Your task to perform on an android device: turn smart compose on in the gmail app Image 0: 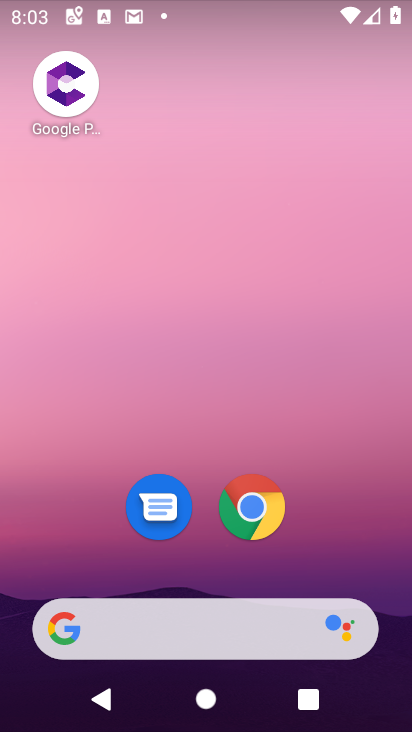
Step 0: drag from (290, 697) to (206, 8)
Your task to perform on an android device: turn smart compose on in the gmail app Image 1: 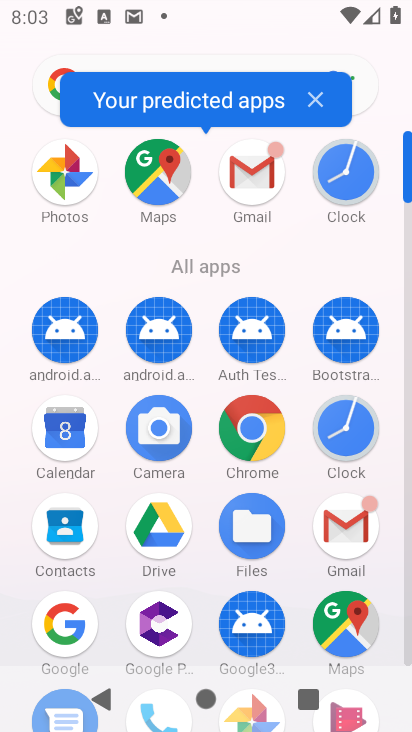
Step 1: click (348, 527)
Your task to perform on an android device: turn smart compose on in the gmail app Image 2: 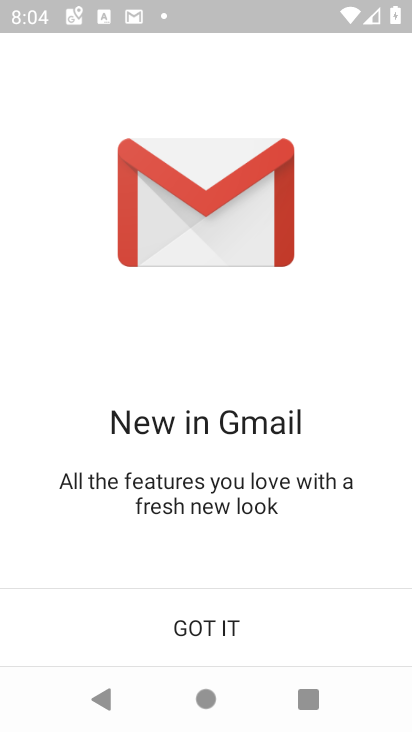
Step 2: click (275, 645)
Your task to perform on an android device: turn smart compose on in the gmail app Image 3: 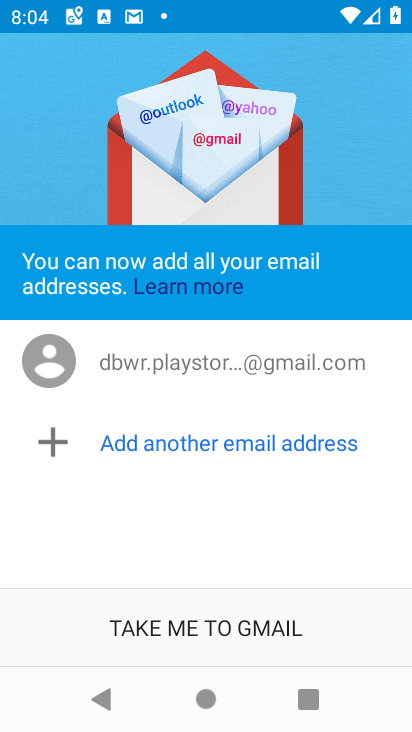
Step 3: click (303, 614)
Your task to perform on an android device: turn smart compose on in the gmail app Image 4: 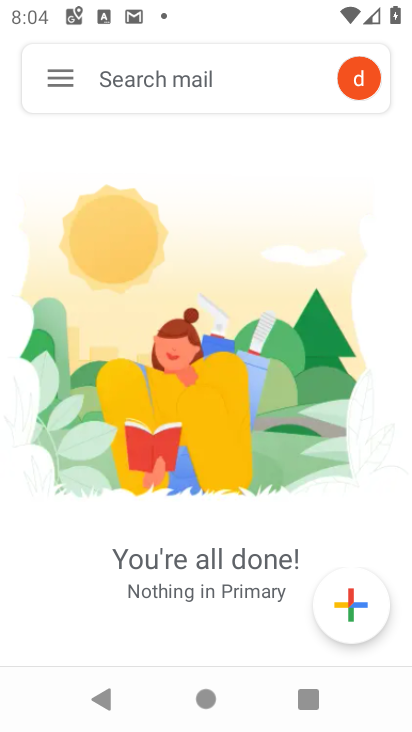
Step 4: drag from (67, 71) to (94, 438)
Your task to perform on an android device: turn smart compose on in the gmail app Image 5: 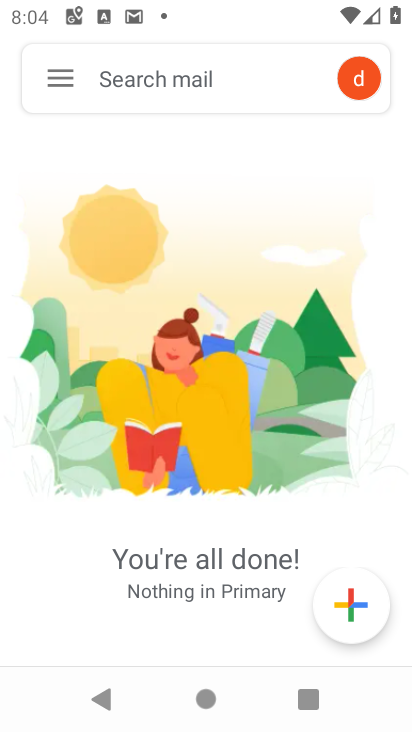
Step 5: click (51, 82)
Your task to perform on an android device: turn smart compose on in the gmail app Image 6: 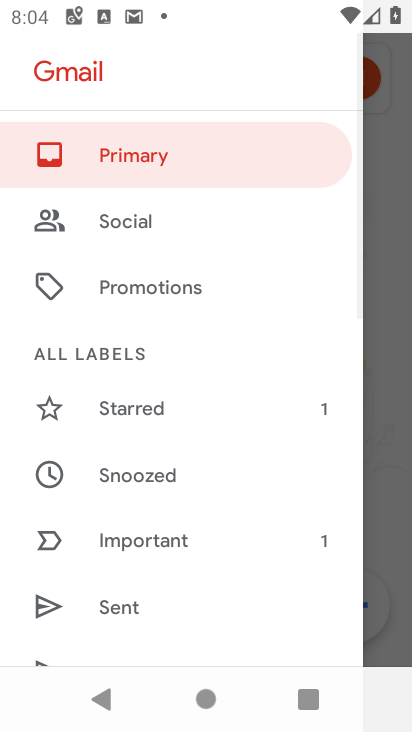
Step 6: drag from (193, 641) to (248, 15)
Your task to perform on an android device: turn smart compose on in the gmail app Image 7: 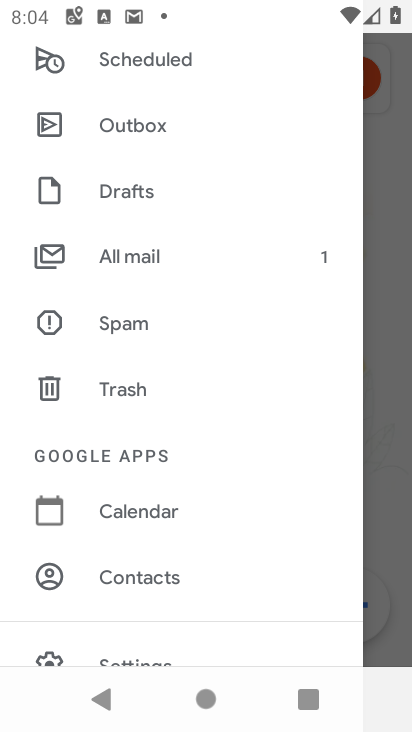
Step 7: drag from (197, 593) to (182, 51)
Your task to perform on an android device: turn smart compose on in the gmail app Image 8: 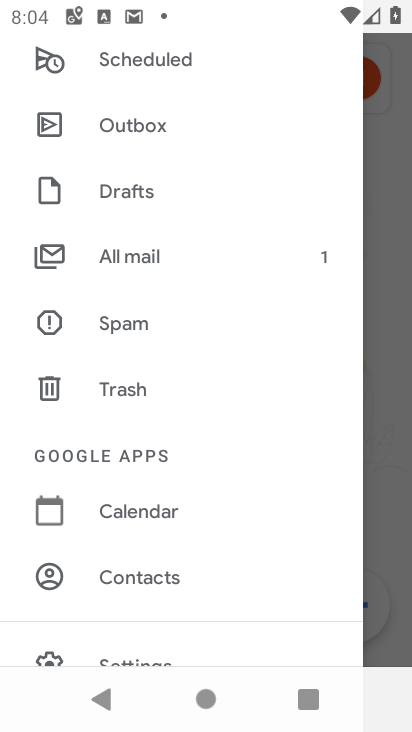
Step 8: drag from (261, 542) to (194, 16)
Your task to perform on an android device: turn smart compose on in the gmail app Image 9: 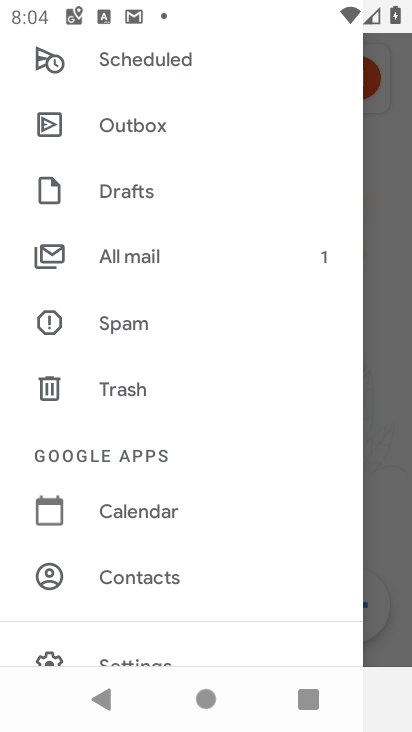
Step 9: click (161, 659)
Your task to perform on an android device: turn smart compose on in the gmail app Image 10: 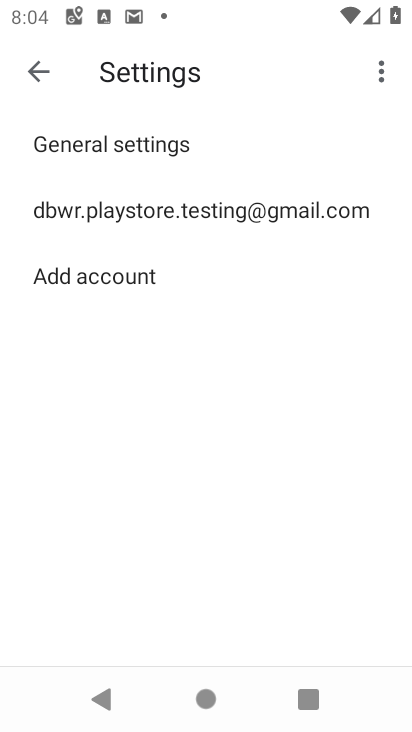
Step 10: click (279, 203)
Your task to perform on an android device: turn smart compose on in the gmail app Image 11: 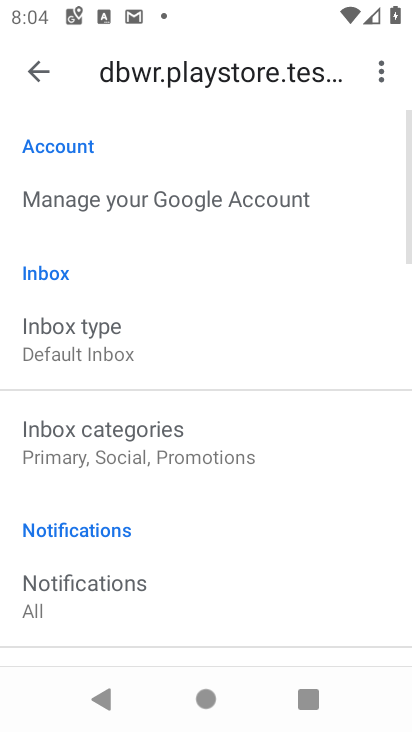
Step 11: task complete